Your task to perform on an android device: What's the news about the US? Image 0: 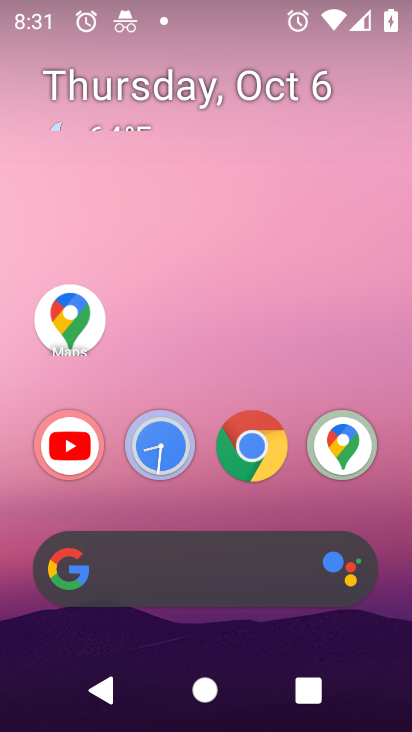
Step 0: click (130, 584)
Your task to perform on an android device: What's the news about the US? Image 1: 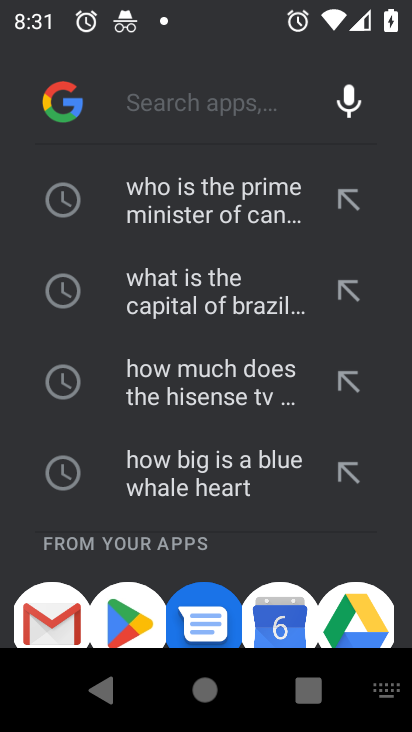
Step 1: type "What's the news about the US?"
Your task to perform on an android device: What's the news about the US? Image 2: 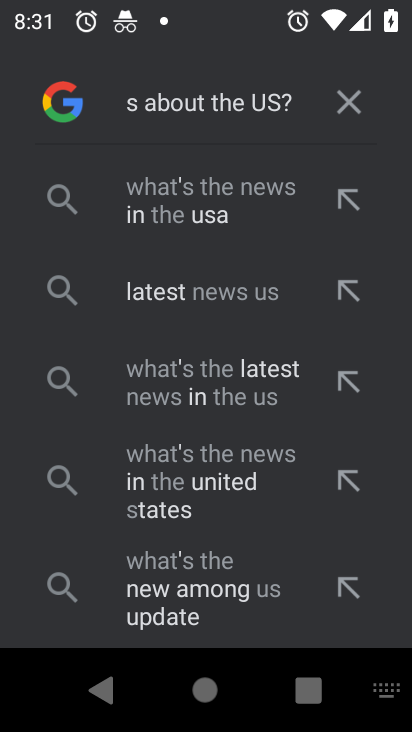
Step 2: click (214, 220)
Your task to perform on an android device: What's the news about the US? Image 3: 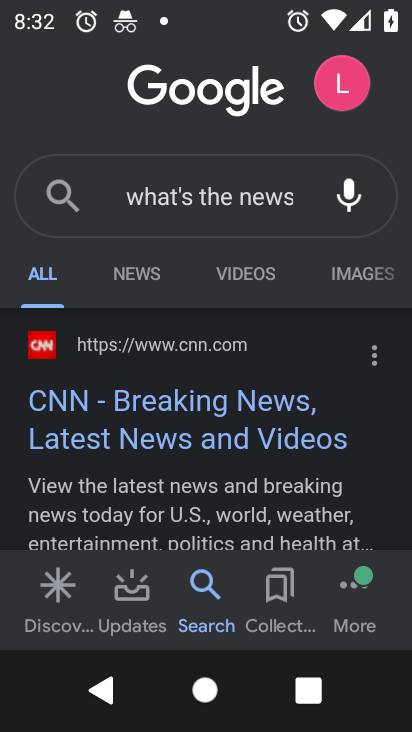
Step 3: click (187, 413)
Your task to perform on an android device: What's the news about the US? Image 4: 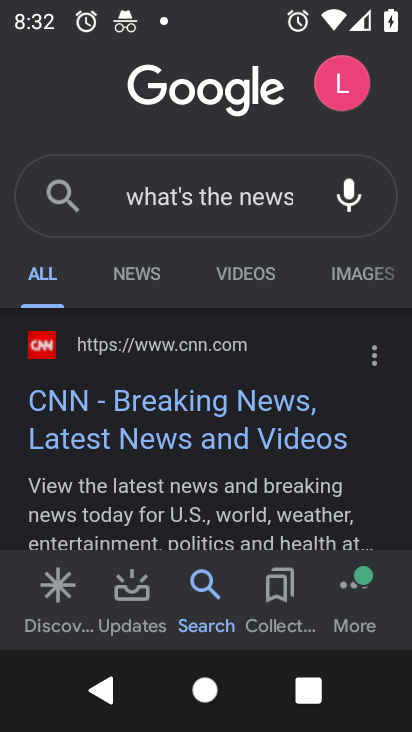
Step 4: task complete